Your task to perform on an android device: toggle sleep mode Image 0: 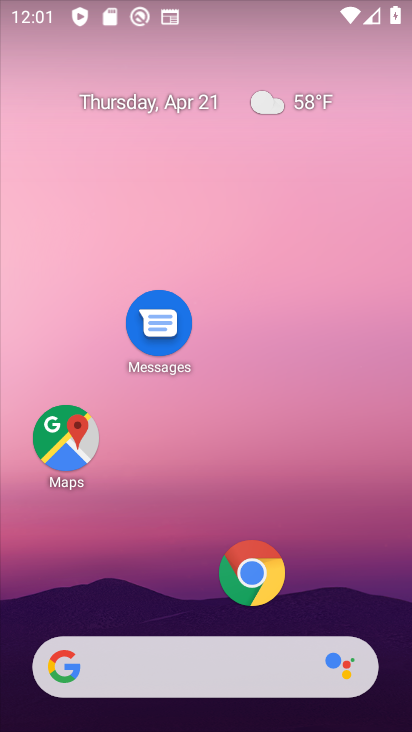
Step 0: drag from (198, 599) to (162, 67)
Your task to perform on an android device: toggle sleep mode Image 1: 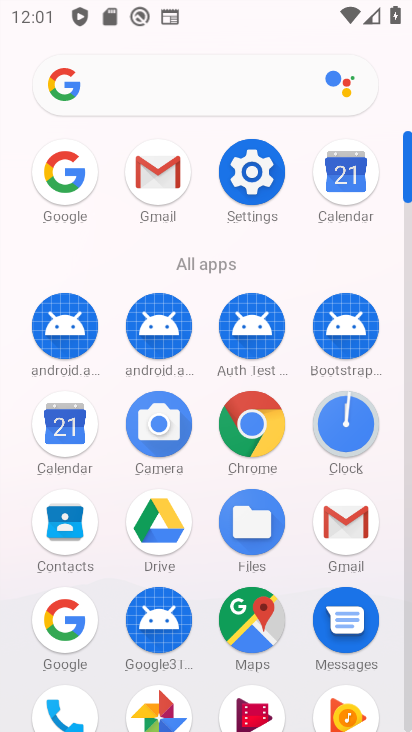
Step 1: click (253, 172)
Your task to perform on an android device: toggle sleep mode Image 2: 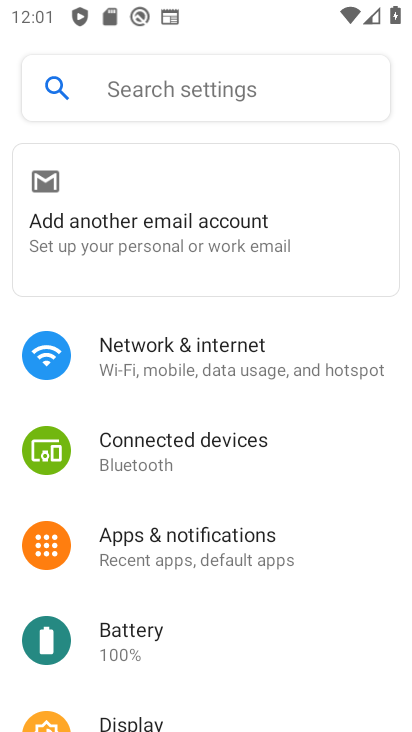
Step 2: drag from (243, 588) to (205, 227)
Your task to perform on an android device: toggle sleep mode Image 3: 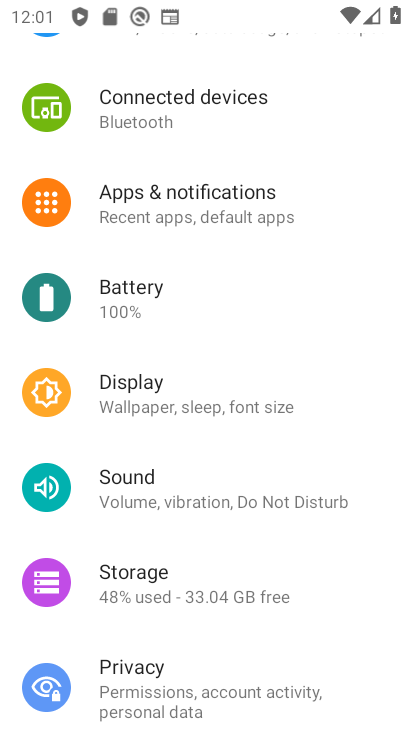
Step 3: click (184, 401)
Your task to perform on an android device: toggle sleep mode Image 4: 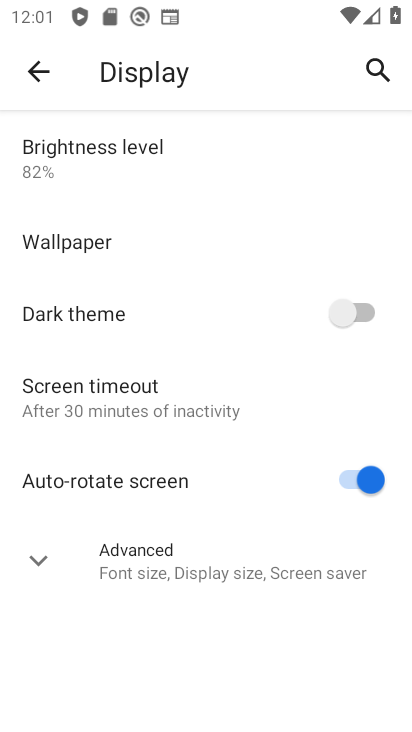
Step 4: click (109, 409)
Your task to perform on an android device: toggle sleep mode Image 5: 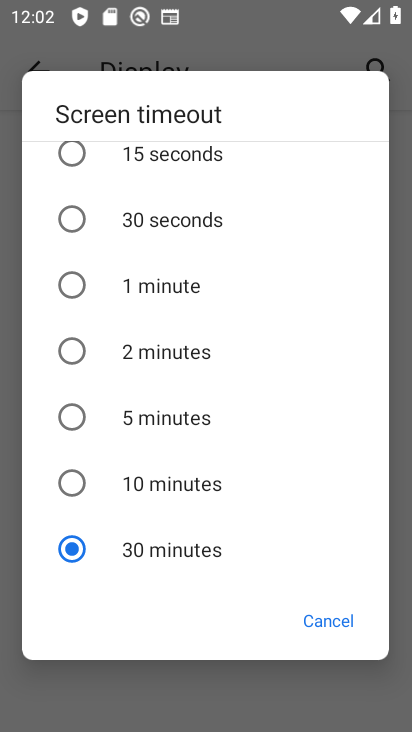
Step 5: click (76, 413)
Your task to perform on an android device: toggle sleep mode Image 6: 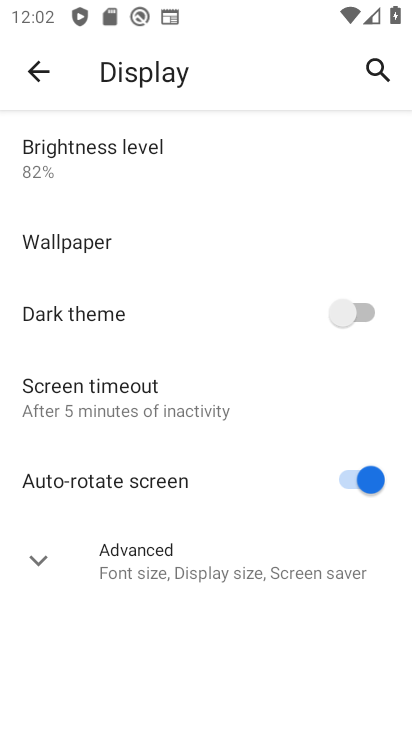
Step 6: task complete